Your task to perform on an android device: toggle show notifications on the lock screen Image 0: 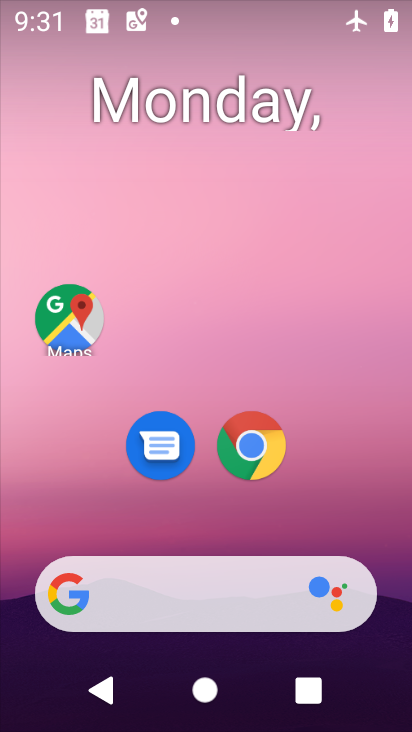
Step 0: drag from (269, 659) to (407, 386)
Your task to perform on an android device: toggle show notifications on the lock screen Image 1: 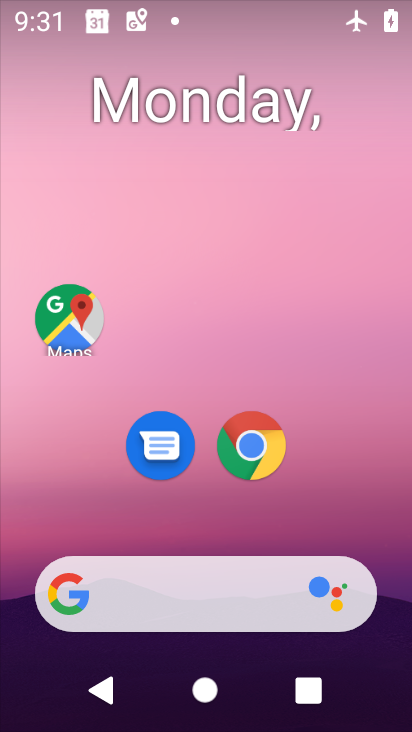
Step 1: drag from (224, 678) to (313, 73)
Your task to perform on an android device: toggle show notifications on the lock screen Image 2: 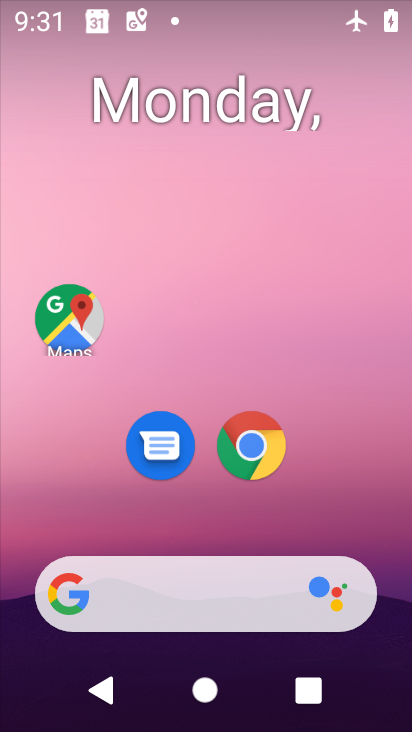
Step 2: drag from (268, 693) to (312, 487)
Your task to perform on an android device: toggle show notifications on the lock screen Image 3: 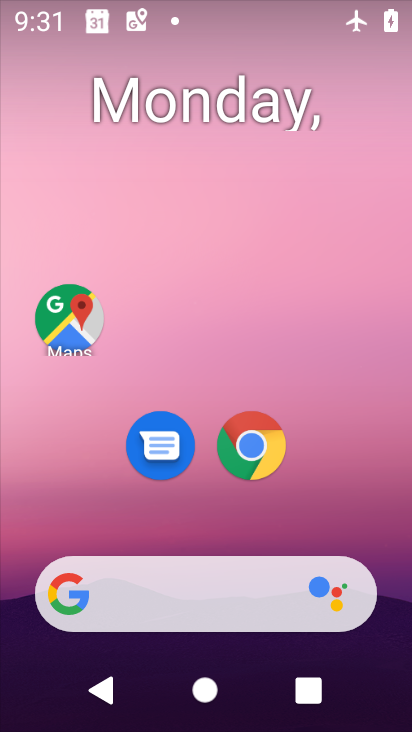
Step 3: drag from (266, 689) to (298, 7)
Your task to perform on an android device: toggle show notifications on the lock screen Image 4: 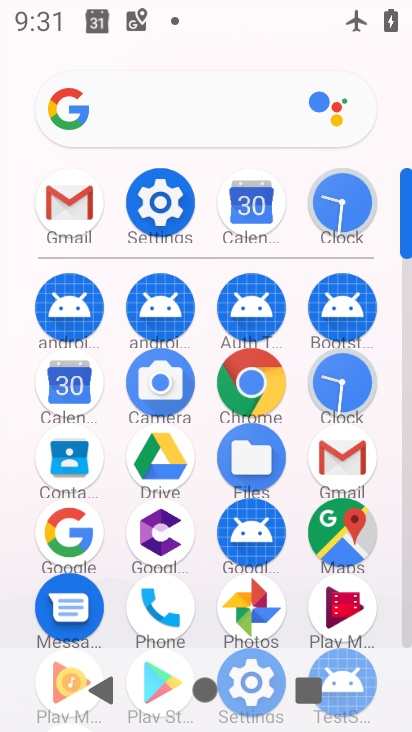
Step 4: click (162, 177)
Your task to perform on an android device: toggle show notifications on the lock screen Image 5: 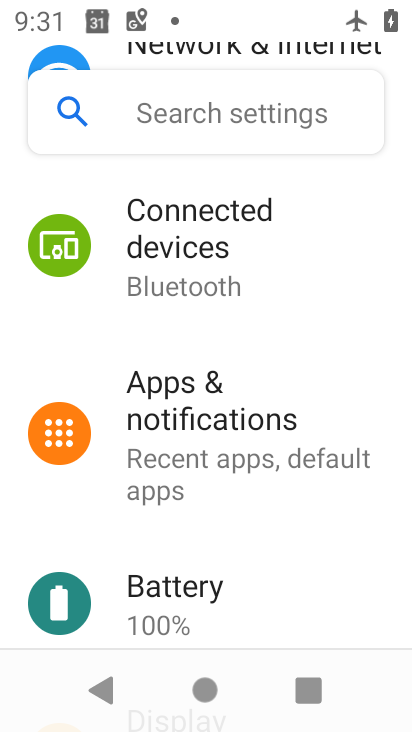
Step 5: click (231, 437)
Your task to perform on an android device: toggle show notifications on the lock screen Image 6: 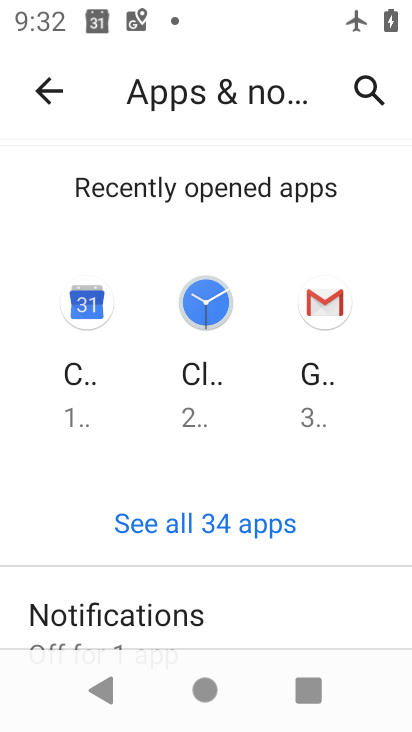
Step 6: drag from (299, 606) to (377, 32)
Your task to perform on an android device: toggle show notifications on the lock screen Image 7: 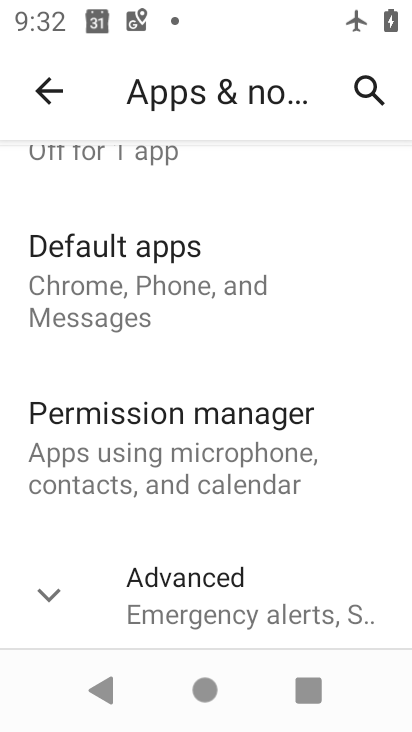
Step 7: drag from (264, 230) to (309, 536)
Your task to perform on an android device: toggle show notifications on the lock screen Image 8: 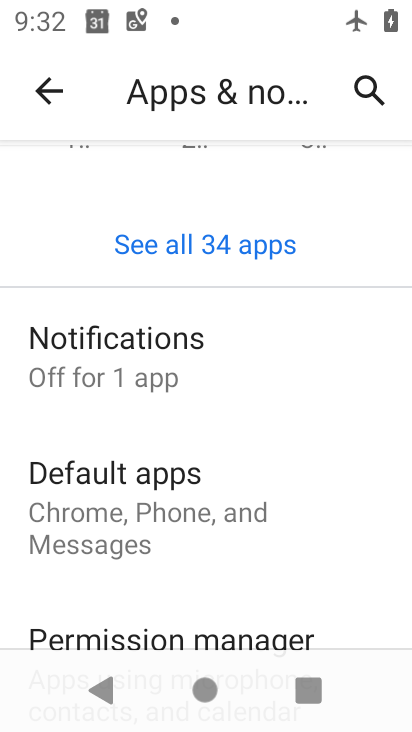
Step 8: click (166, 336)
Your task to perform on an android device: toggle show notifications on the lock screen Image 9: 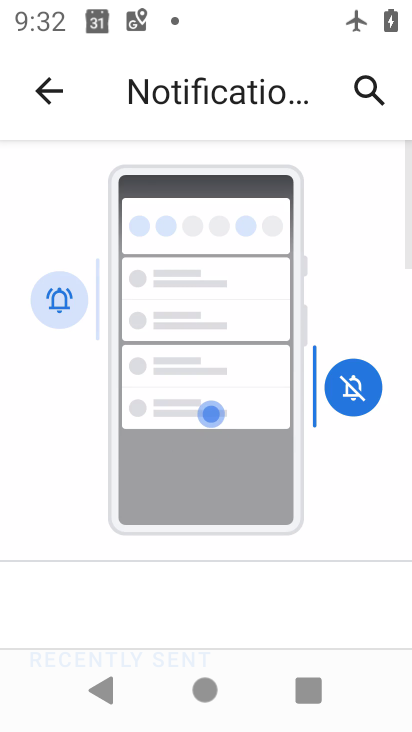
Step 9: drag from (164, 580) to (240, 122)
Your task to perform on an android device: toggle show notifications on the lock screen Image 10: 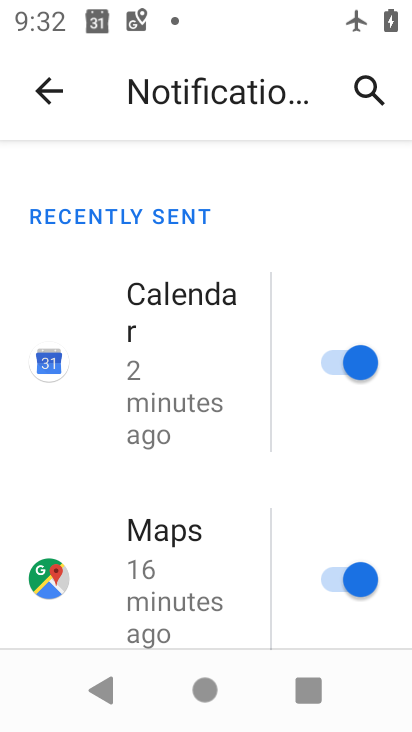
Step 10: drag from (213, 585) to (226, 184)
Your task to perform on an android device: toggle show notifications on the lock screen Image 11: 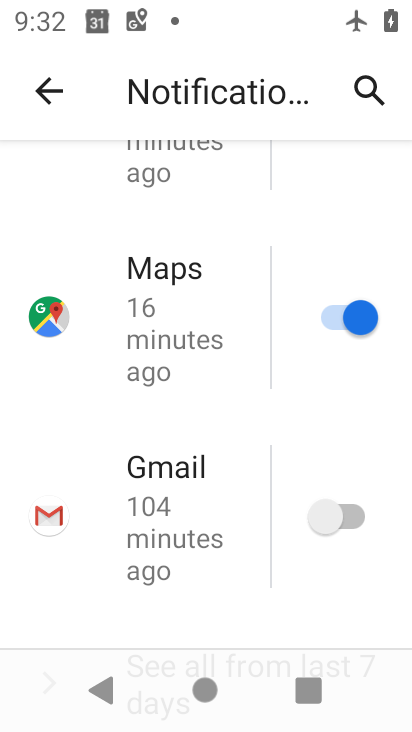
Step 11: drag from (200, 581) to (308, 180)
Your task to perform on an android device: toggle show notifications on the lock screen Image 12: 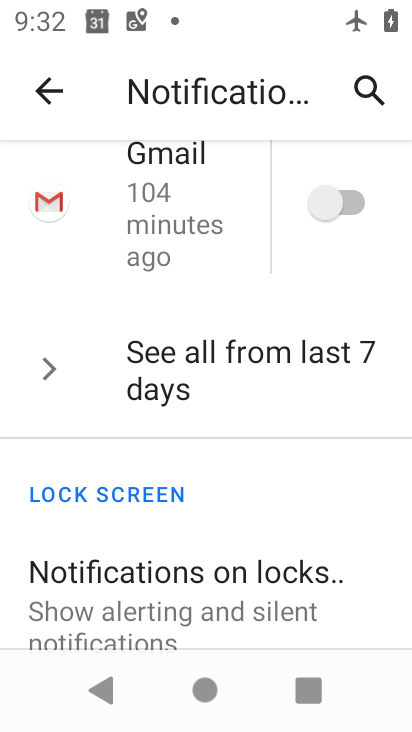
Step 12: drag from (176, 472) to (241, 19)
Your task to perform on an android device: toggle show notifications on the lock screen Image 13: 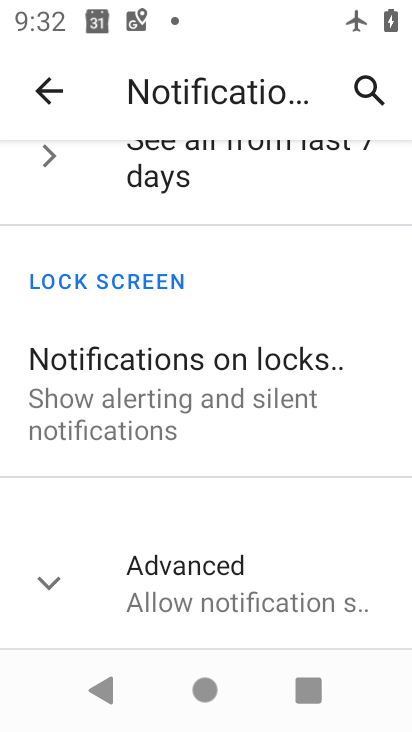
Step 13: drag from (197, 348) to (278, 33)
Your task to perform on an android device: toggle show notifications on the lock screen Image 14: 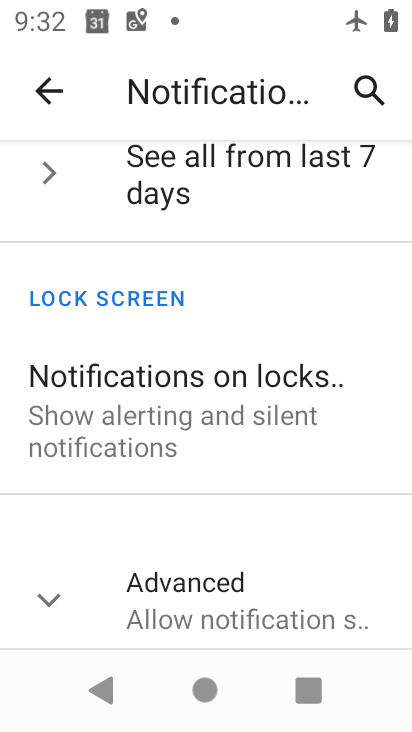
Step 14: click (220, 426)
Your task to perform on an android device: toggle show notifications on the lock screen Image 15: 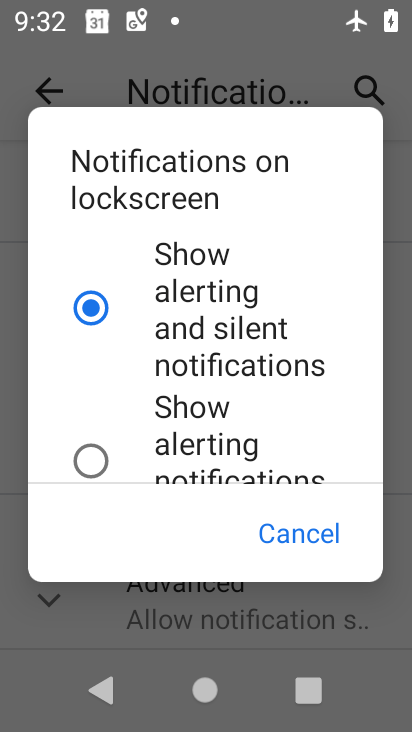
Step 15: task complete